Your task to perform on an android device: Open calendar and show me the second week of next month Image 0: 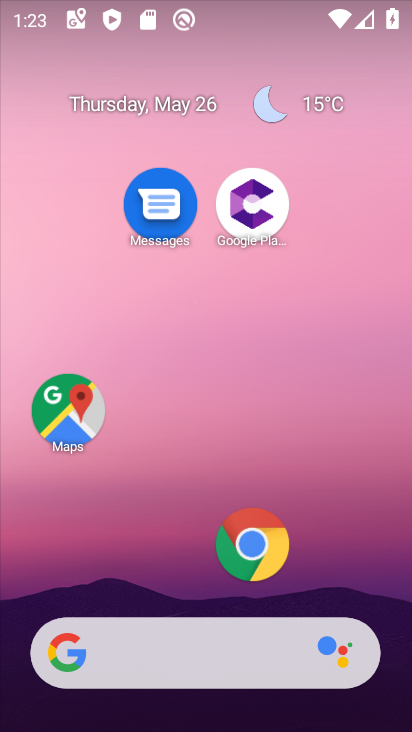
Step 0: click (150, 98)
Your task to perform on an android device: Open calendar and show me the second week of next month Image 1: 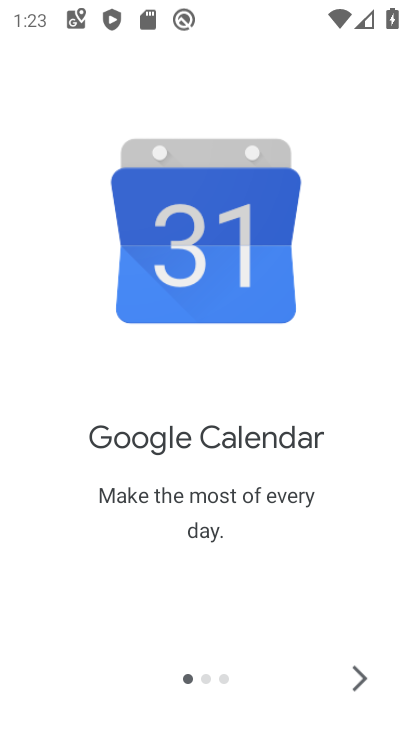
Step 1: click (353, 694)
Your task to perform on an android device: Open calendar and show me the second week of next month Image 2: 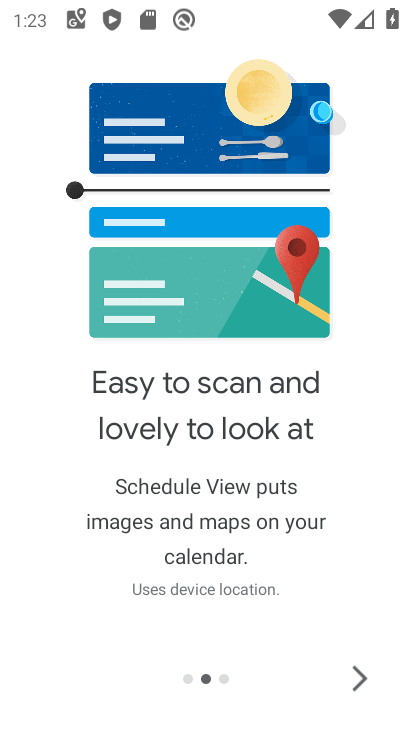
Step 2: click (353, 694)
Your task to perform on an android device: Open calendar and show me the second week of next month Image 3: 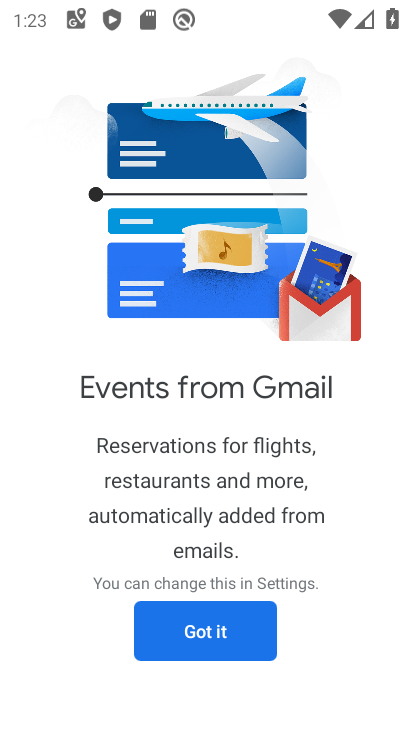
Step 3: click (223, 644)
Your task to perform on an android device: Open calendar and show me the second week of next month Image 4: 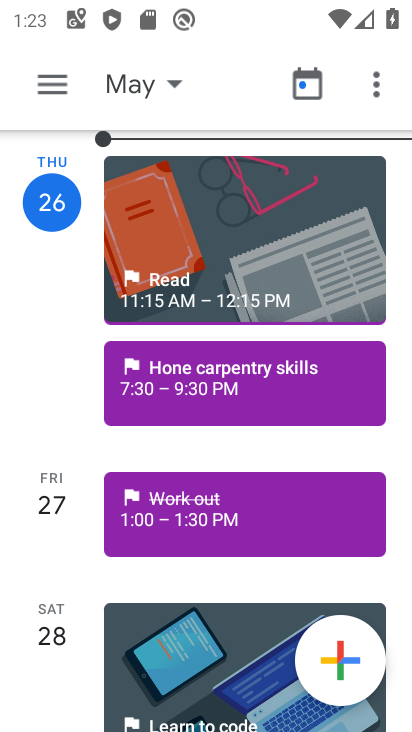
Step 4: click (143, 92)
Your task to perform on an android device: Open calendar and show me the second week of next month Image 5: 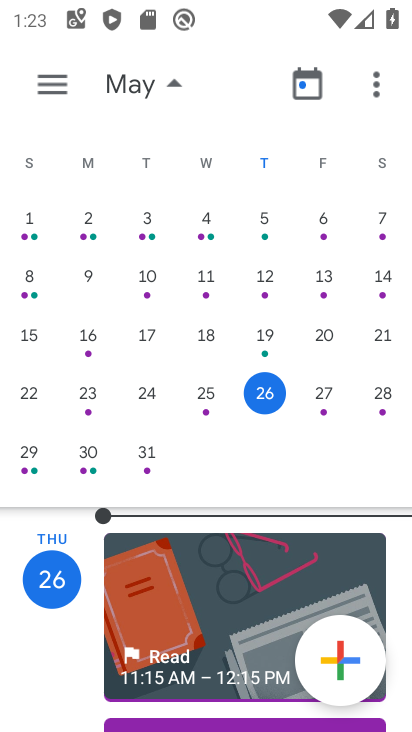
Step 5: drag from (324, 452) to (34, 426)
Your task to perform on an android device: Open calendar and show me the second week of next month Image 6: 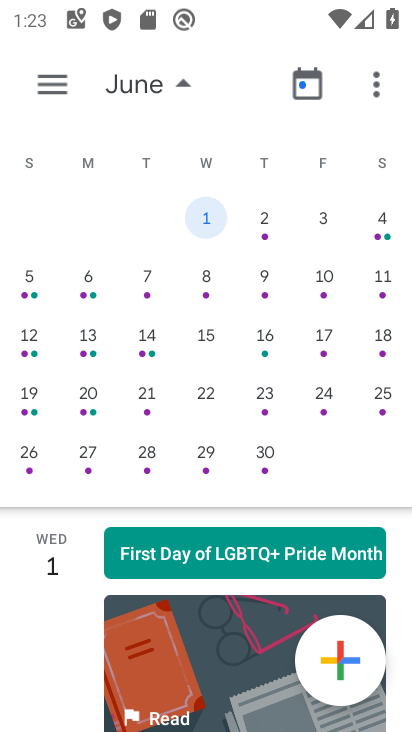
Step 6: click (214, 276)
Your task to perform on an android device: Open calendar and show me the second week of next month Image 7: 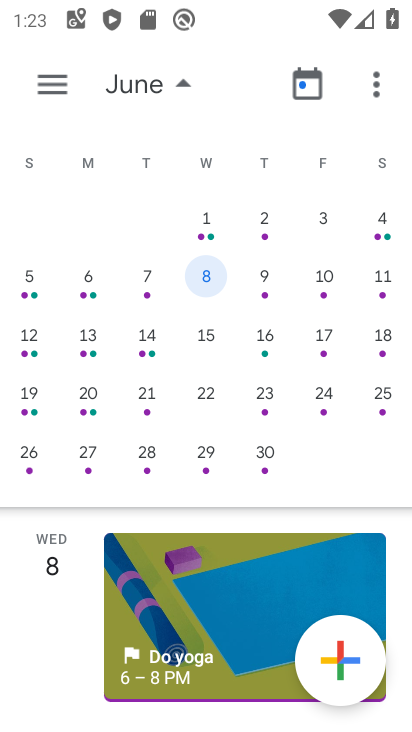
Step 7: task complete